Your task to perform on an android device: change keyboard looks Image 0: 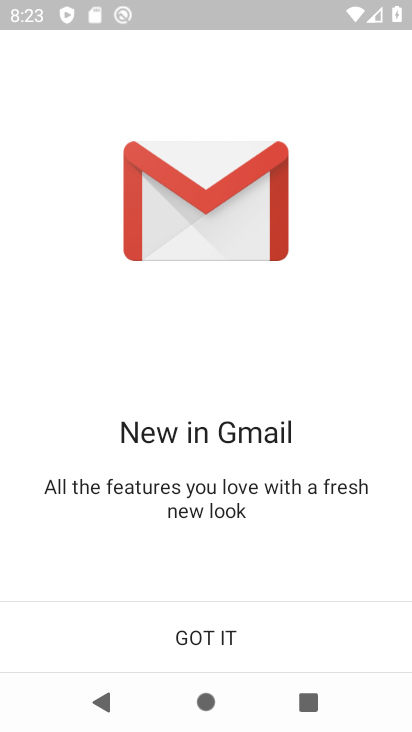
Step 0: press home button
Your task to perform on an android device: change keyboard looks Image 1: 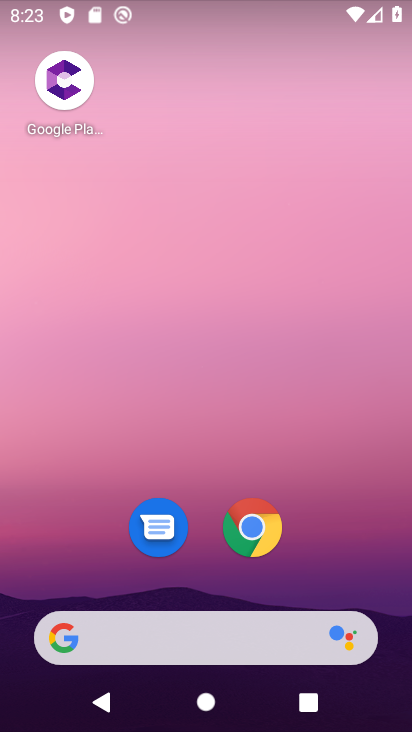
Step 1: drag from (335, 548) to (318, 126)
Your task to perform on an android device: change keyboard looks Image 2: 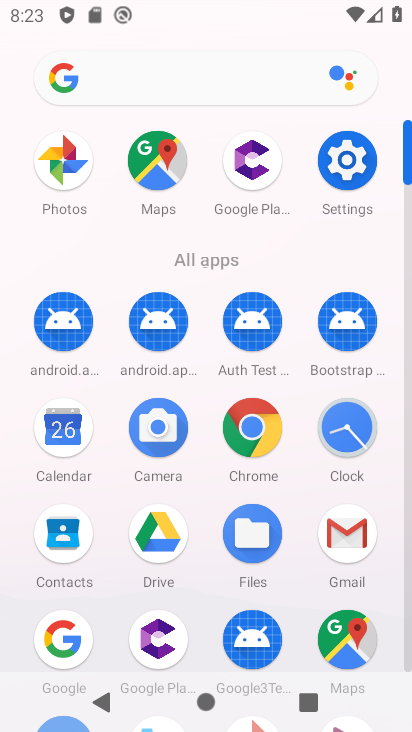
Step 2: drag from (202, 606) to (263, 207)
Your task to perform on an android device: change keyboard looks Image 3: 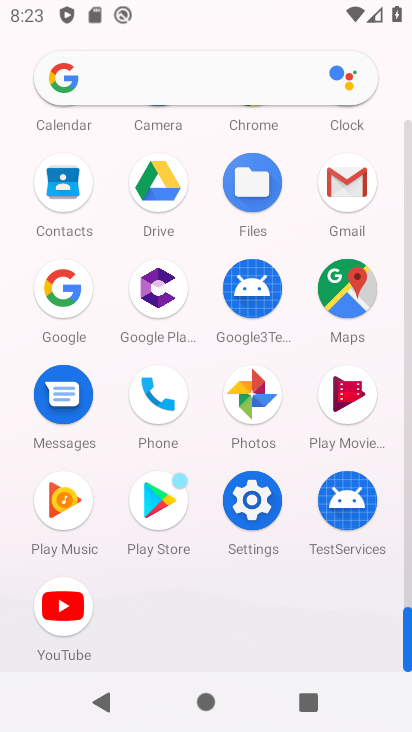
Step 3: click (259, 505)
Your task to perform on an android device: change keyboard looks Image 4: 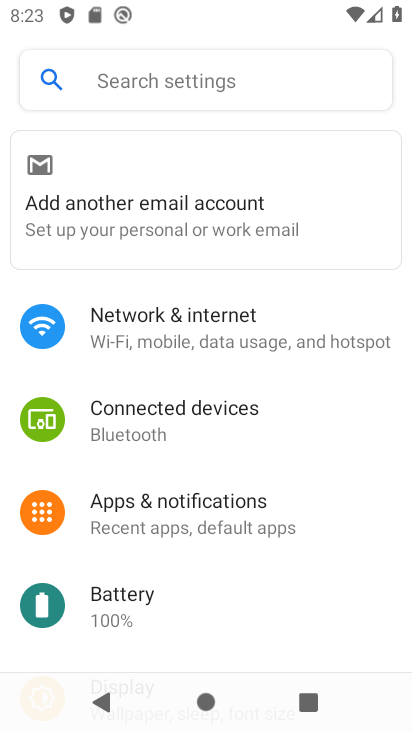
Step 4: drag from (229, 523) to (193, 86)
Your task to perform on an android device: change keyboard looks Image 5: 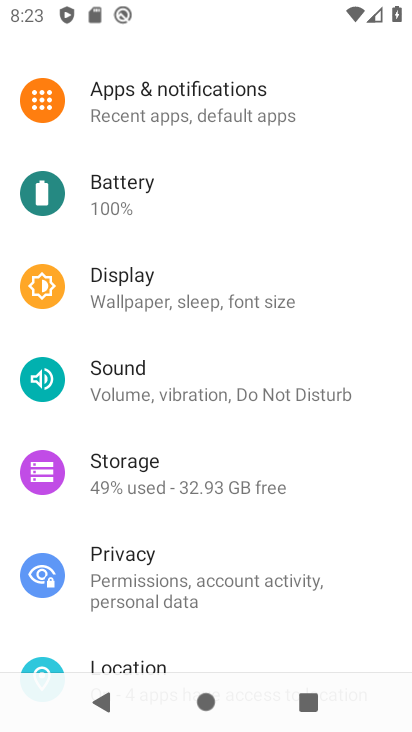
Step 5: drag from (276, 571) to (345, 73)
Your task to perform on an android device: change keyboard looks Image 6: 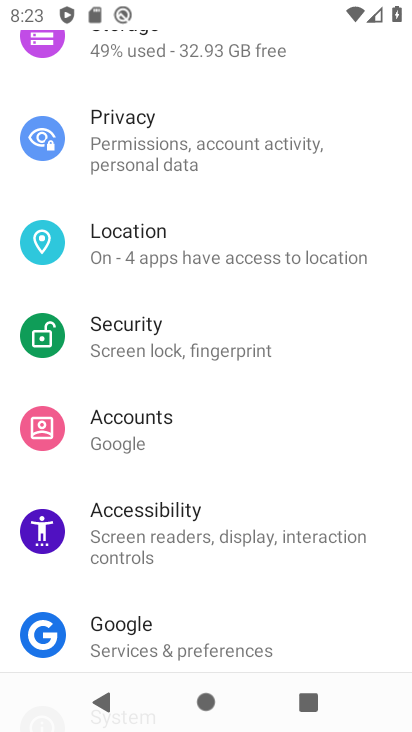
Step 6: drag from (198, 629) to (235, 233)
Your task to perform on an android device: change keyboard looks Image 7: 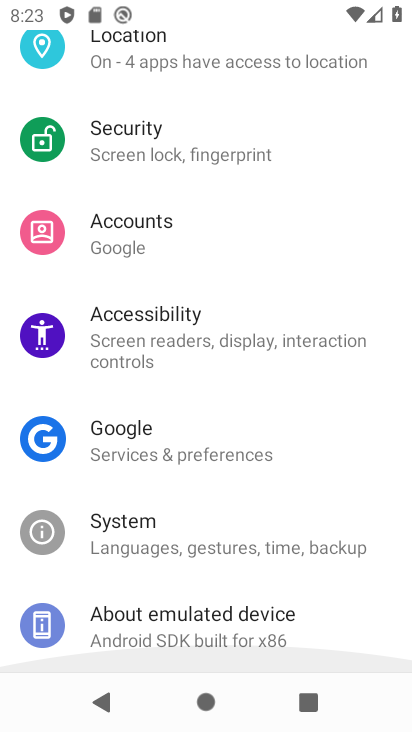
Step 7: click (231, 218)
Your task to perform on an android device: change keyboard looks Image 8: 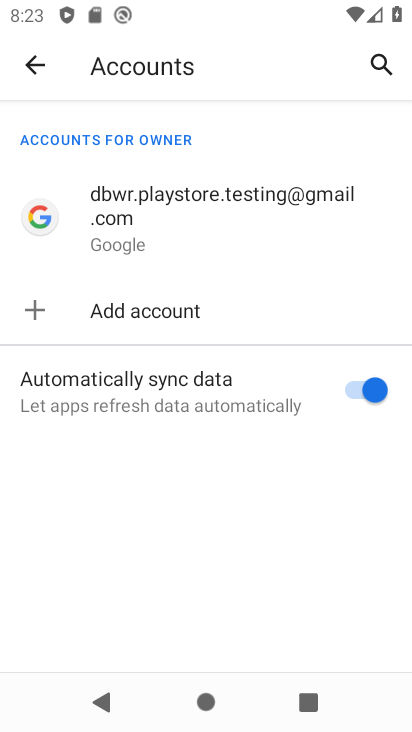
Step 8: click (32, 65)
Your task to perform on an android device: change keyboard looks Image 9: 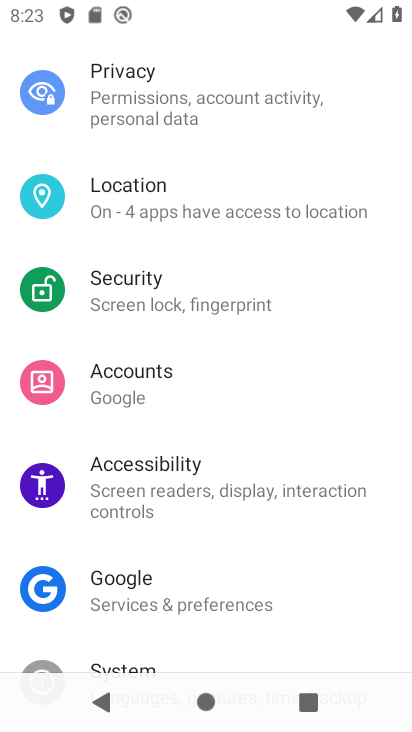
Step 9: drag from (306, 533) to (326, 256)
Your task to perform on an android device: change keyboard looks Image 10: 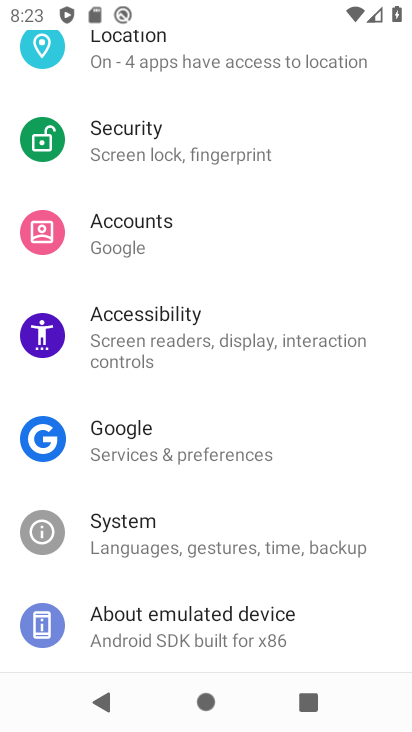
Step 10: click (199, 551)
Your task to perform on an android device: change keyboard looks Image 11: 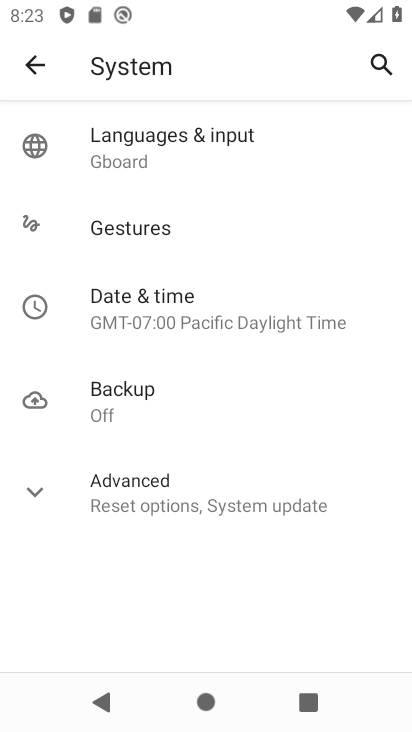
Step 11: click (175, 164)
Your task to perform on an android device: change keyboard looks Image 12: 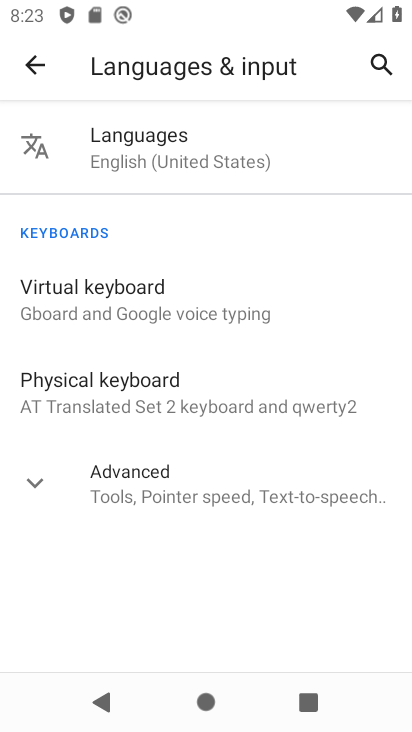
Step 12: click (160, 289)
Your task to perform on an android device: change keyboard looks Image 13: 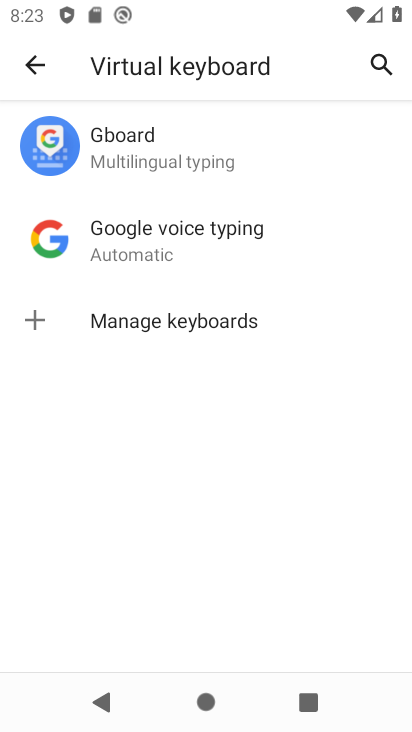
Step 13: click (164, 163)
Your task to perform on an android device: change keyboard looks Image 14: 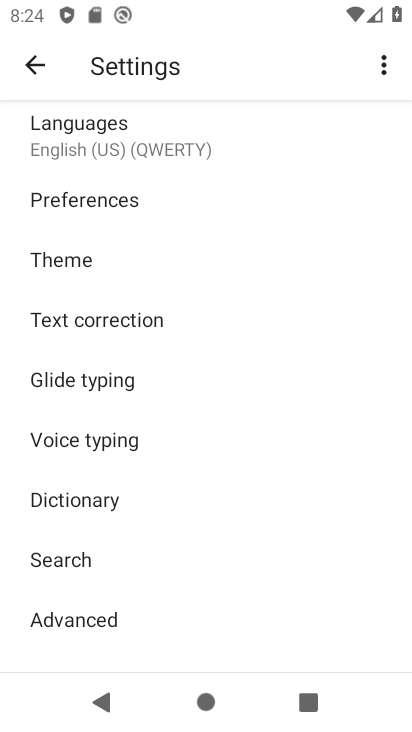
Step 14: click (84, 276)
Your task to perform on an android device: change keyboard looks Image 15: 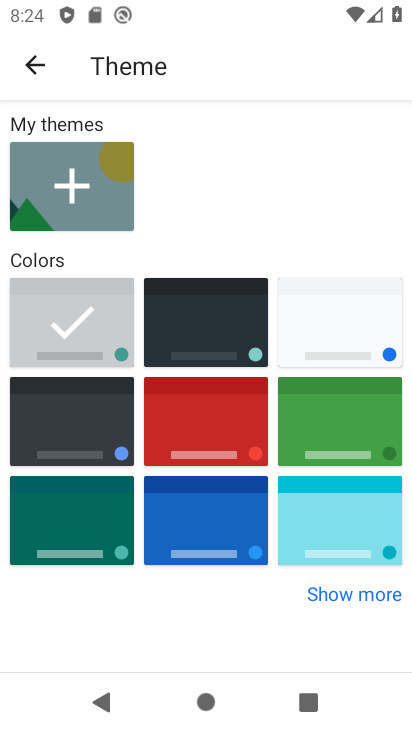
Step 15: click (340, 321)
Your task to perform on an android device: change keyboard looks Image 16: 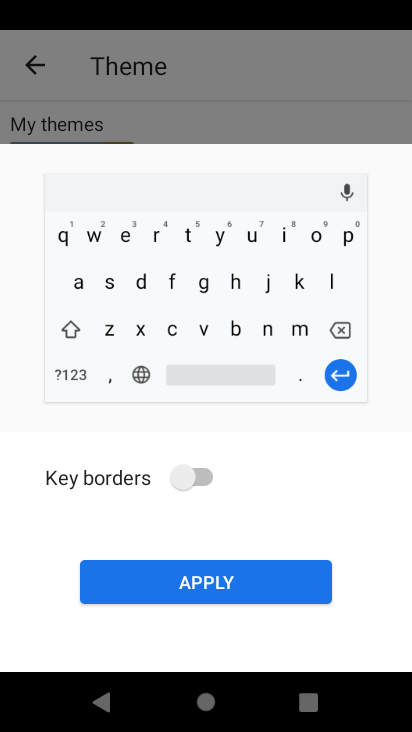
Step 16: click (289, 574)
Your task to perform on an android device: change keyboard looks Image 17: 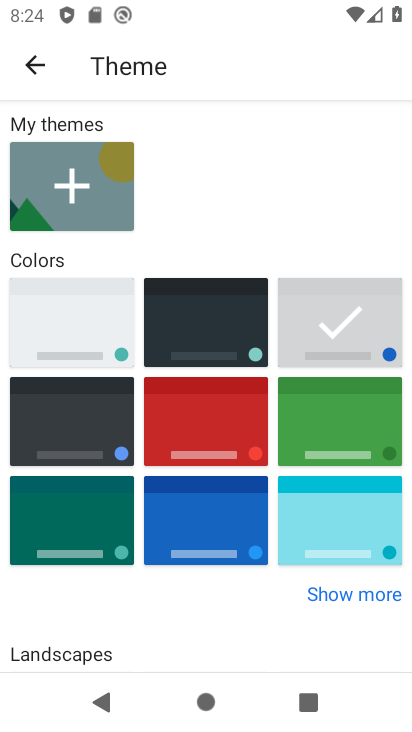
Step 17: task complete